Your task to perform on an android device: turn on showing notifications on the lock screen Image 0: 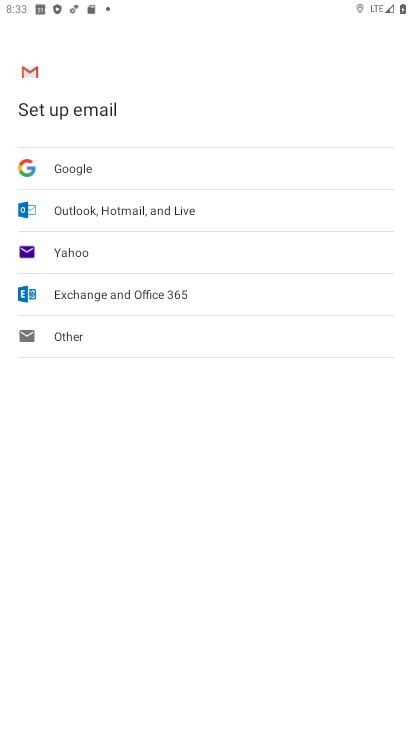
Step 0: press home button
Your task to perform on an android device: turn on showing notifications on the lock screen Image 1: 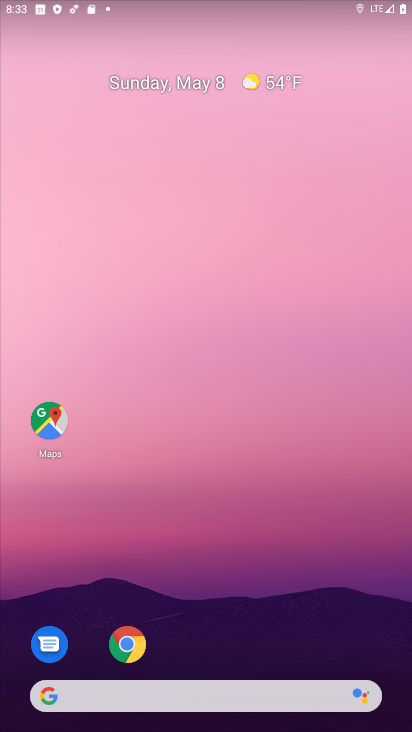
Step 1: drag from (201, 660) to (240, 94)
Your task to perform on an android device: turn on showing notifications on the lock screen Image 2: 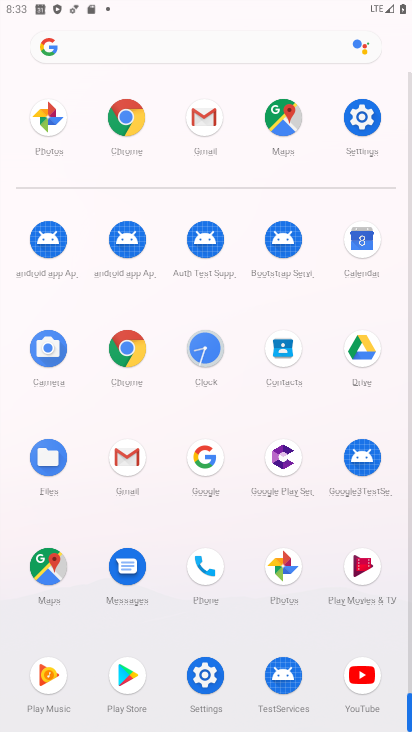
Step 2: click (353, 131)
Your task to perform on an android device: turn on showing notifications on the lock screen Image 3: 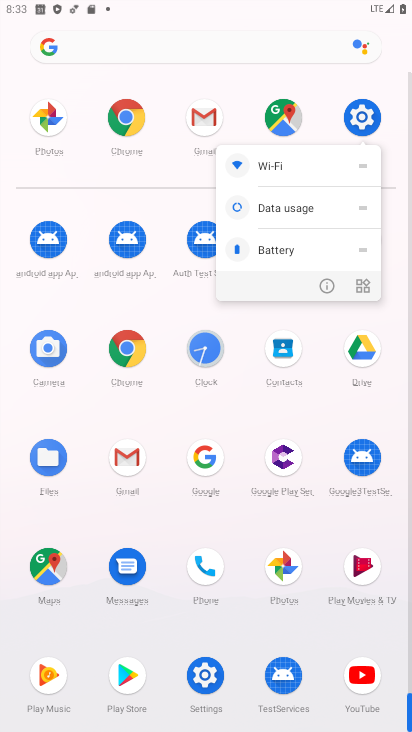
Step 3: click (324, 291)
Your task to perform on an android device: turn on showing notifications on the lock screen Image 4: 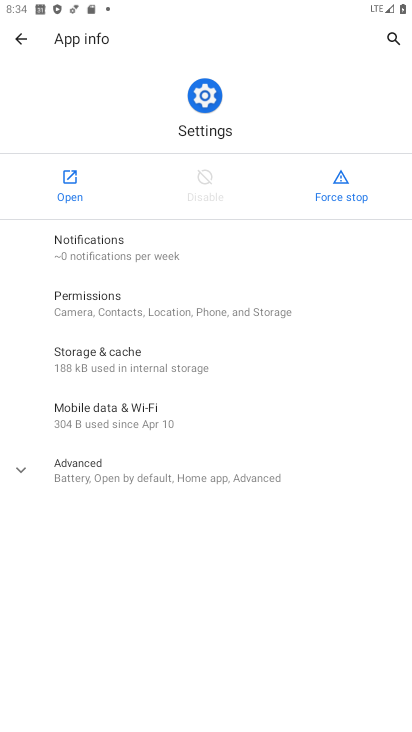
Step 4: click (61, 179)
Your task to perform on an android device: turn on showing notifications on the lock screen Image 5: 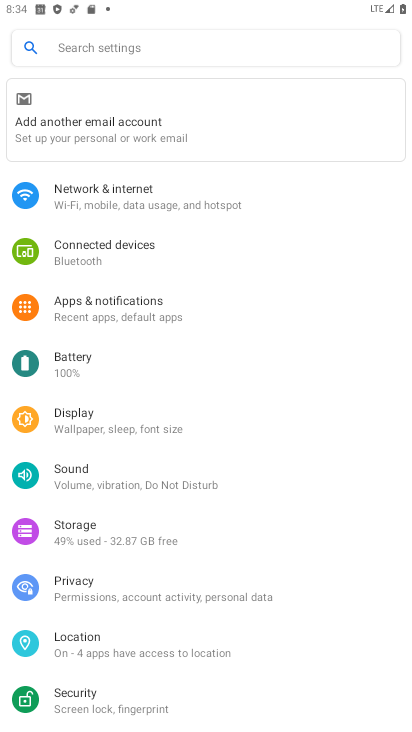
Step 5: drag from (199, 587) to (265, 258)
Your task to perform on an android device: turn on showing notifications on the lock screen Image 6: 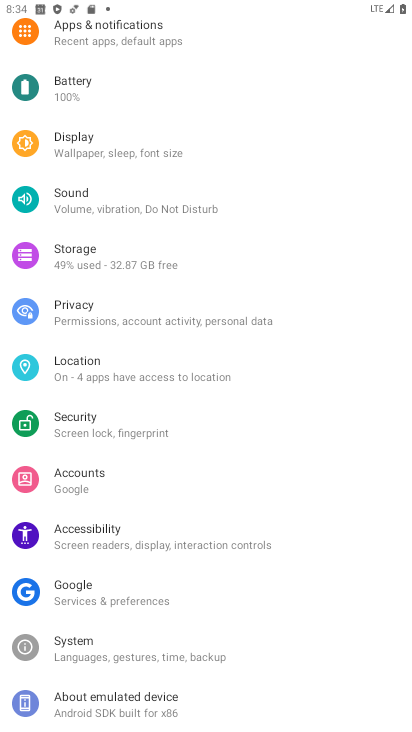
Step 6: drag from (228, 625) to (220, 317)
Your task to perform on an android device: turn on showing notifications on the lock screen Image 7: 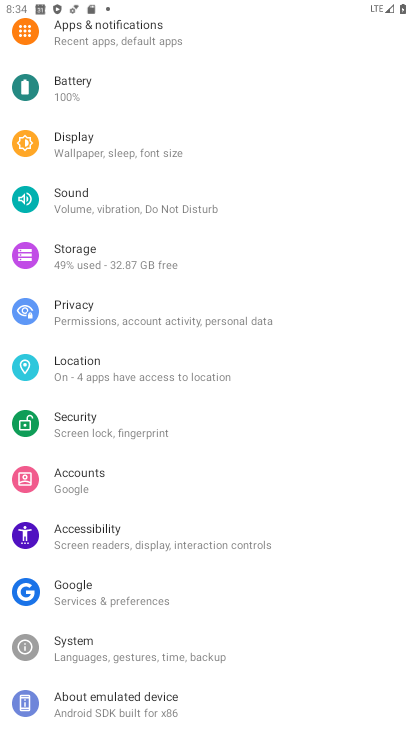
Step 7: click (137, 137)
Your task to perform on an android device: turn on showing notifications on the lock screen Image 8: 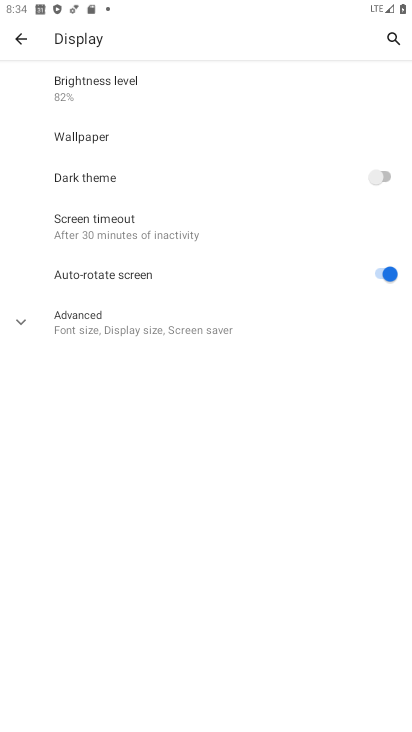
Step 8: click (120, 237)
Your task to perform on an android device: turn on showing notifications on the lock screen Image 9: 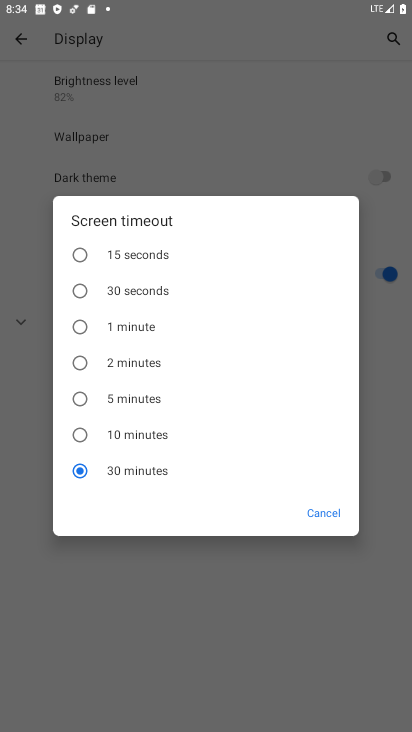
Step 9: click (332, 517)
Your task to perform on an android device: turn on showing notifications on the lock screen Image 10: 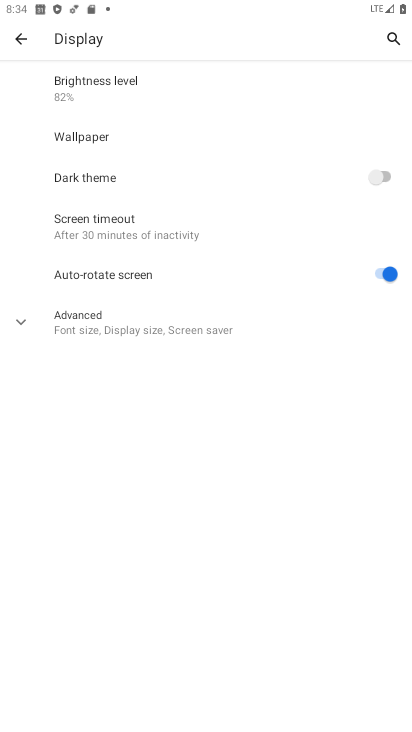
Step 10: click (22, 38)
Your task to perform on an android device: turn on showing notifications on the lock screen Image 11: 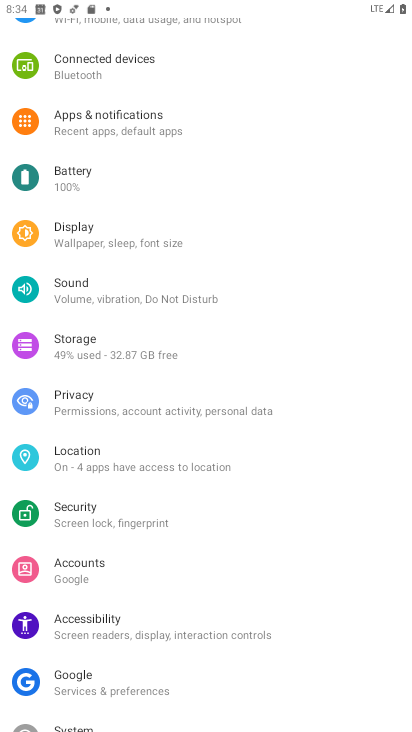
Step 11: click (128, 111)
Your task to perform on an android device: turn on showing notifications on the lock screen Image 12: 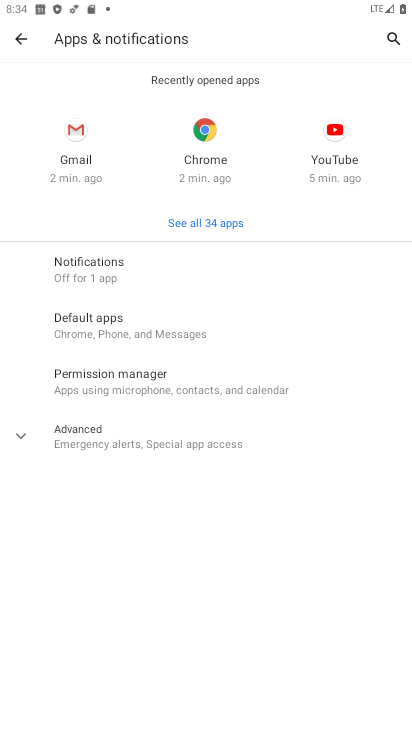
Step 12: click (138, 273)
Your task to perform on an android device: turn on showing notifications on the lock screen Image 13: 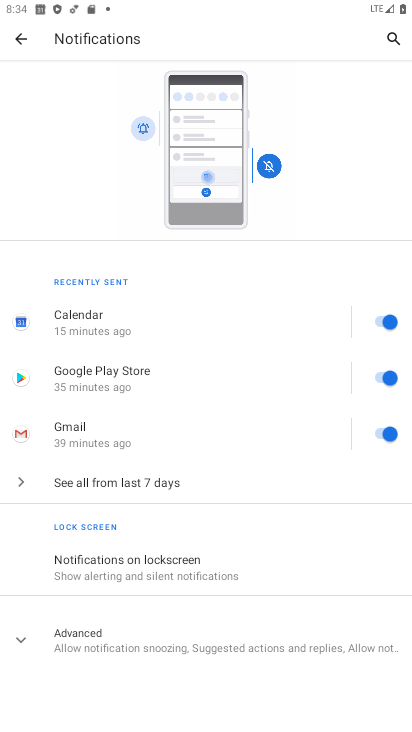
Step 13: click (147, 587)
Your task to perform on an android device: turn on showing notifications on the lock screen Image 14: 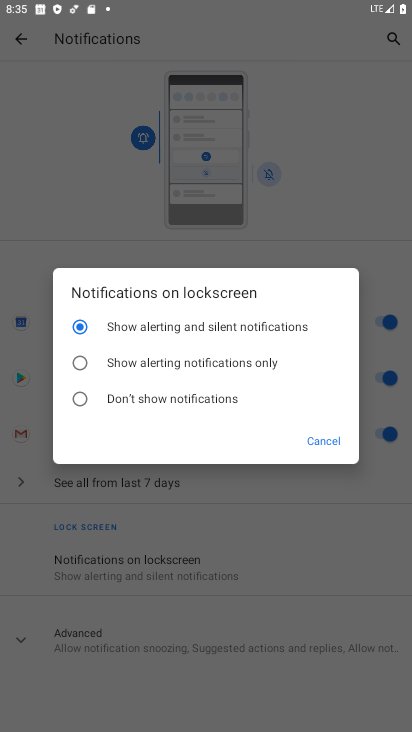
Step 14: click (144, 368)
Your task to perform on an android device: turn on showing notifications on the lock screen Image 15: 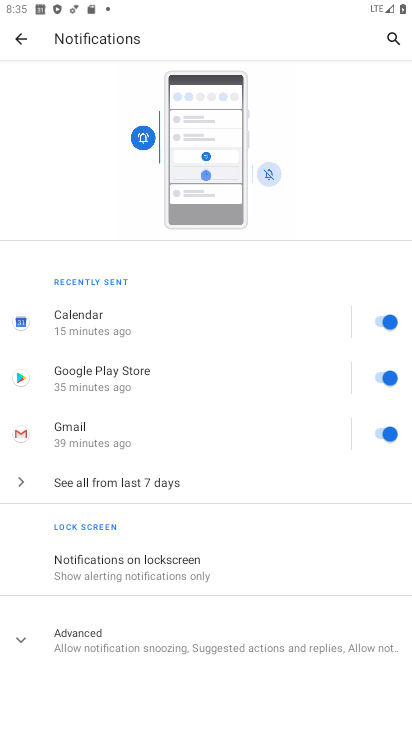
Step 15: task complete